Your task to perform on an android device: toggle pop-ups in chrome Image 0: 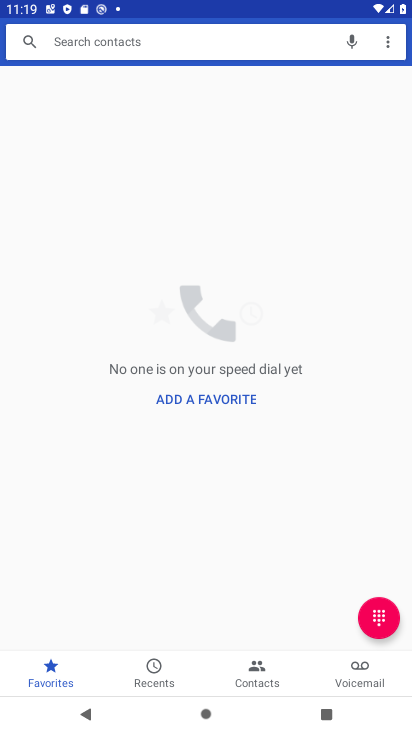
Step 0: press home button
Your task to perform on an android device: toggle pop-ups in chrome Image 1: 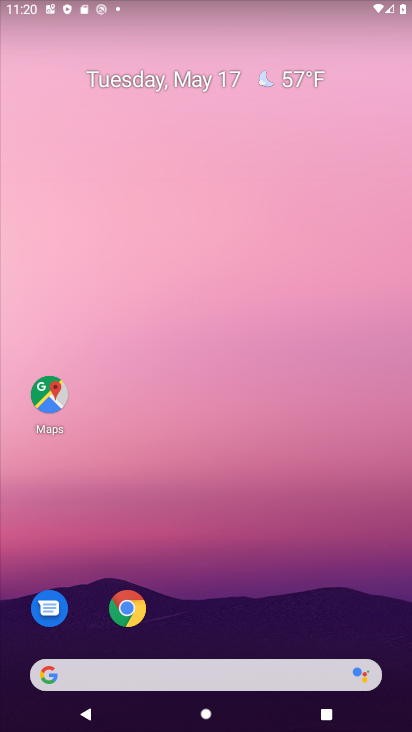
Step 1: click (126, 607)
Your task to perform on an android device: toggle pop-ups in chrome Image 2: 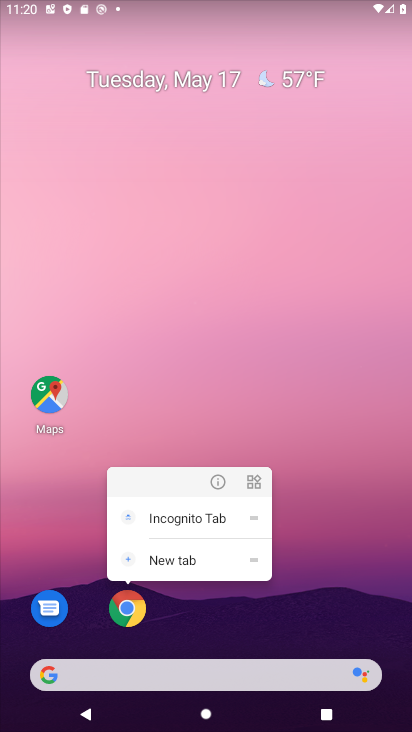
Step 2: click (131, 614)
Your task to perform on an android device: toggle pop-ups in chrome Image 3: 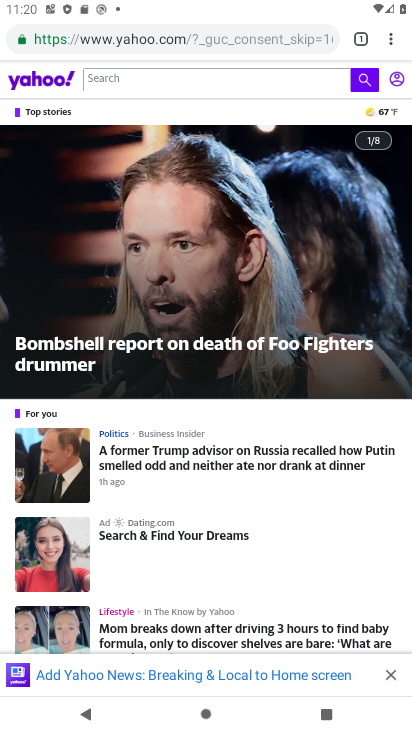
Step 3: click (389, 36)
Your task to perform on an android device: toggle pop-ups in chrome Image 4: 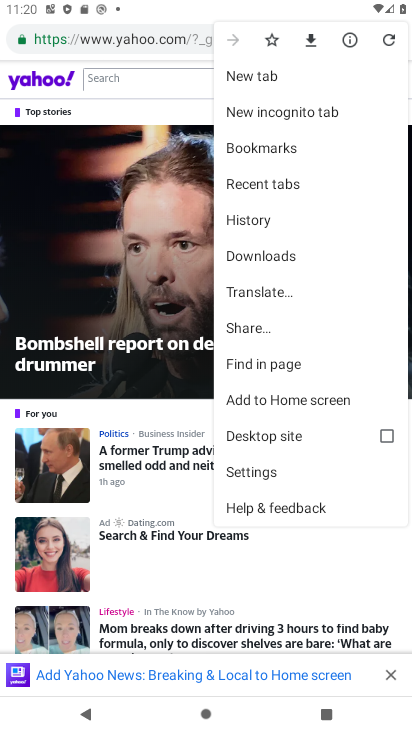
Step 4: click (274, 468)
Your task to perform on an android device: toggle pop-ups in chrome Image 5: 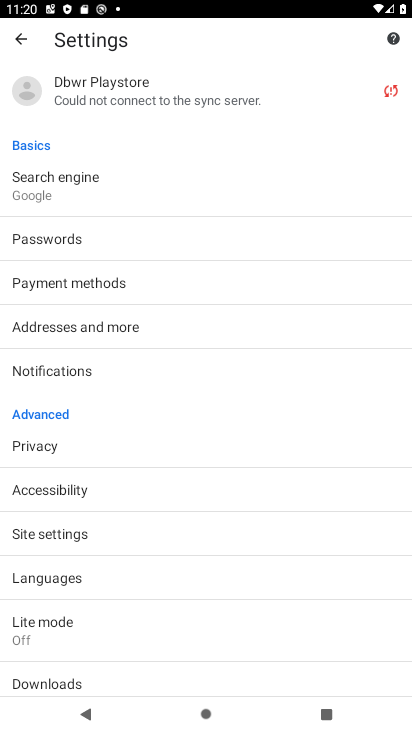
Step 5: click (52, 528)
Your task to perform on an android device: toggle pop-ups in chrome Image 6: 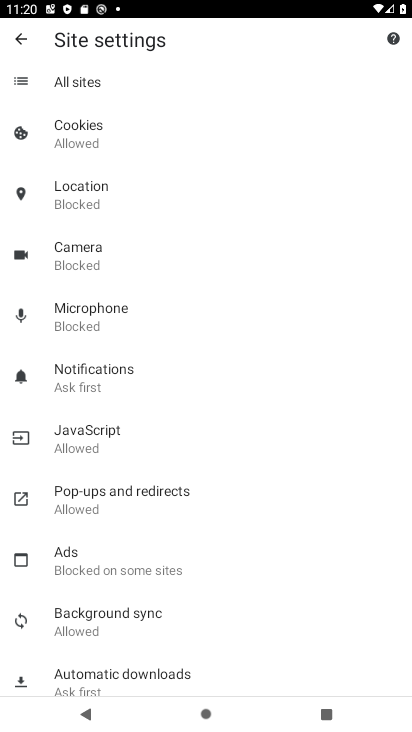
Step 6: click (92, 505)
Your task to perform on an android device: toggle pop-ups in chrome Image 7: 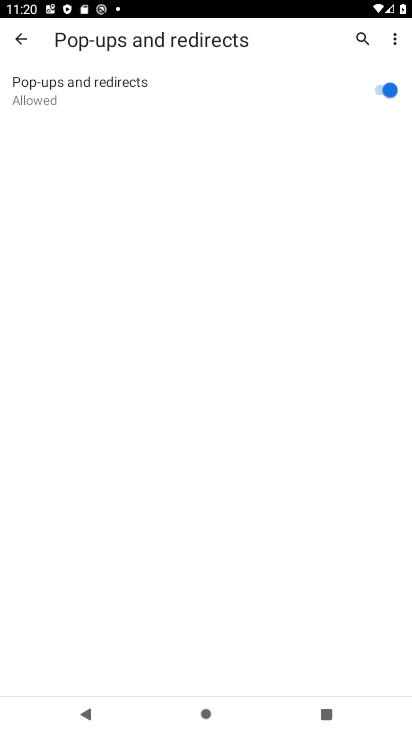
Step 7: click (371, 90)
Your task to perform on an android device: toggle pop-ups in chrome Image 8: 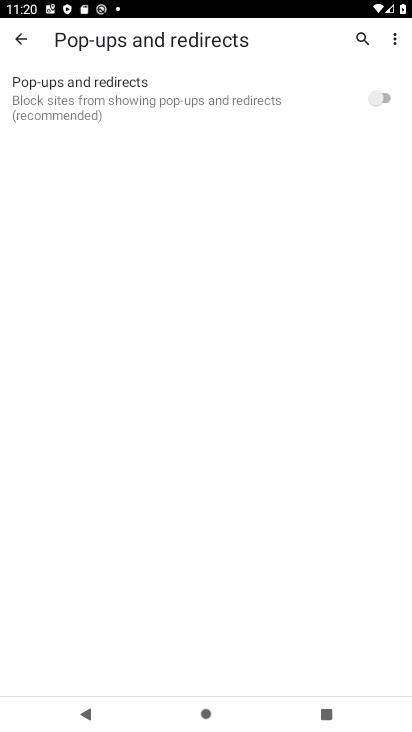
Step 8: task complete